Your task to perform on an android device: Go to internet settings Image 0: 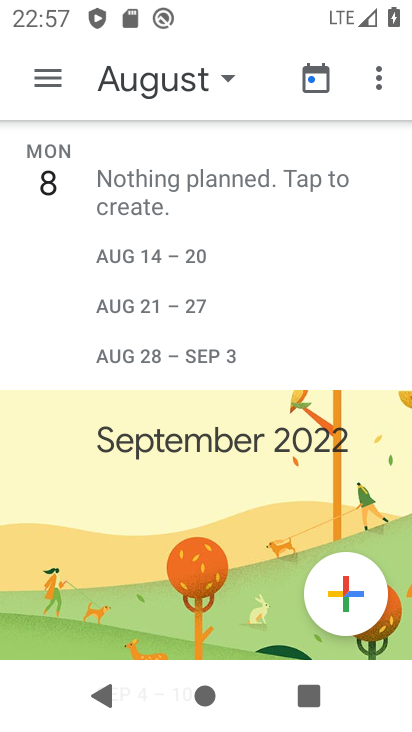
Step 0: press home button
Your task to perform on an android device: Go to internet settings Image 1: 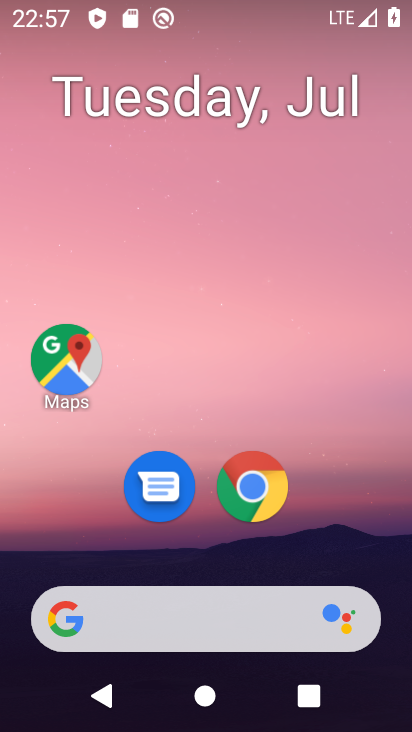
Step 1: drag from (364, 538) to (371, 62)
Your task to perform on an android device: Go to internet settings Image 2: 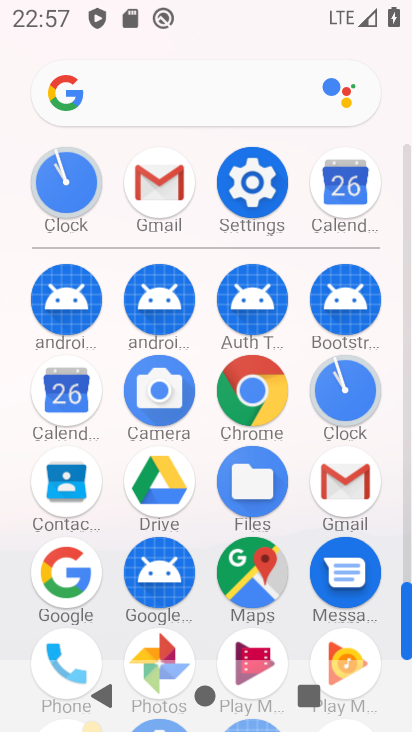
Step 2: click (261, 193)
Your task to perform on an android device: Go to internet settings Image 3: 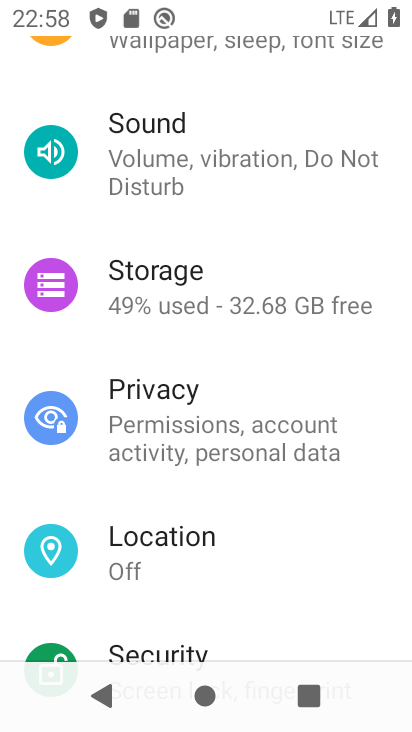
Step 3: drag from (371, 534) to (372, 444)
Your task to perform on an android device: Go to internet settings Image 4: 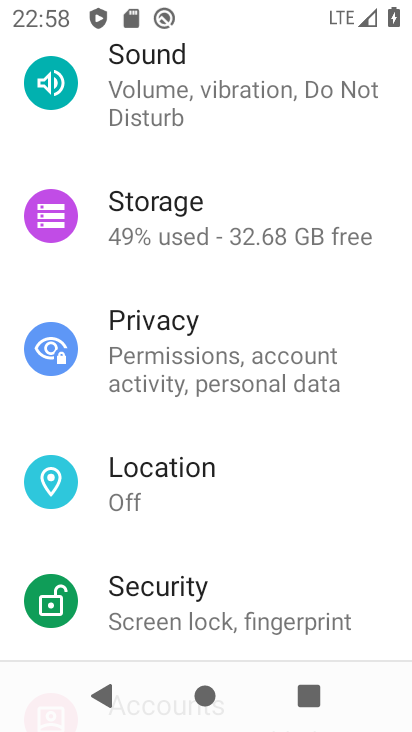
Step 4: drag from (351, 543) to (348, 443)
Your task to perform on an android device: Go to internet settings Image 5: 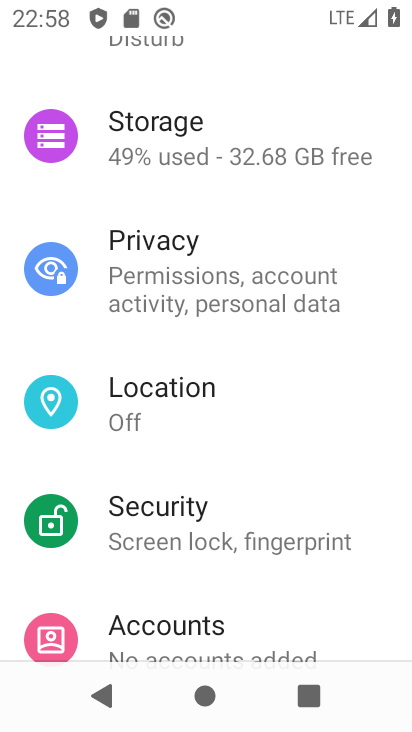
Step 5: drag from (349, 585) to (348, 480)
Your task to perform on an android device: Go to internet settings Image 6: 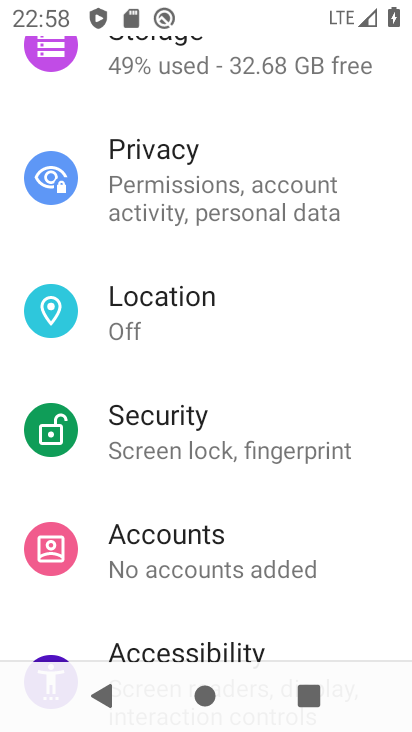
Step 6: drag from (360, 609) to (356, 540)
Your task to perform on an android device: Go to internet settings Image 7: 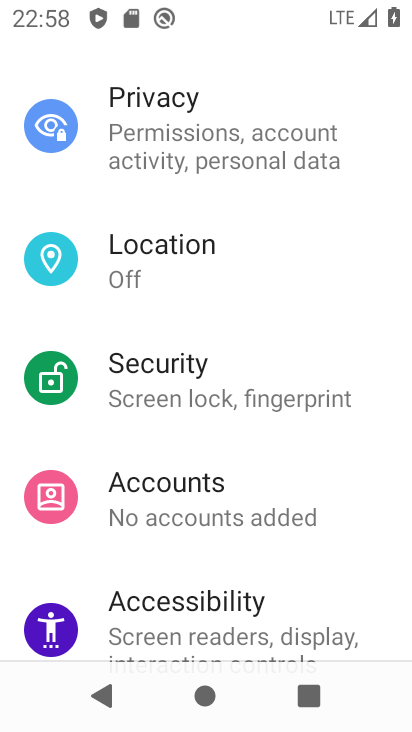
Step 7: drag from (349, 603) to (349, 511)
Your task to perform on an android device: Go to internet settings Image 8: 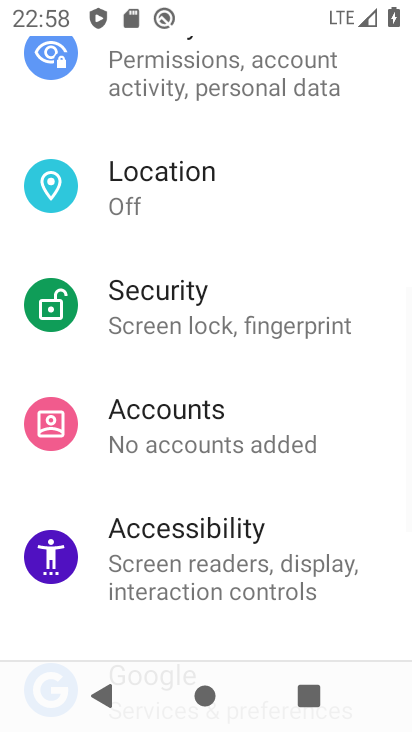
Step 8: drag from (355, 617) to (358, 538)
Your task to perform on an android device: Go to internet settings Image 9: 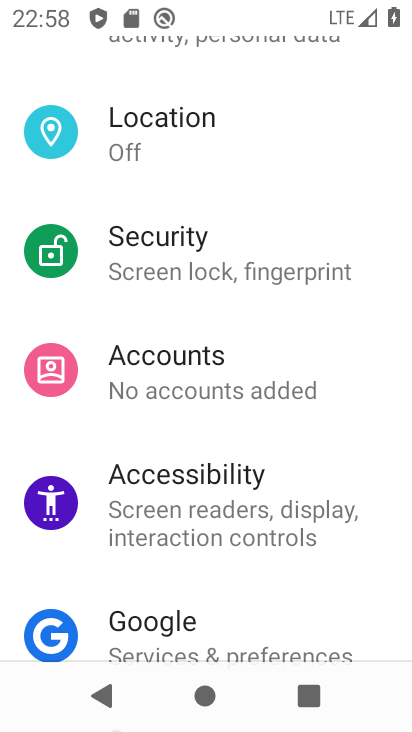
Step 9: drag from (350, 612) to (355, 519)
Your task to perform on an android device: Go to internet settings Image 10: 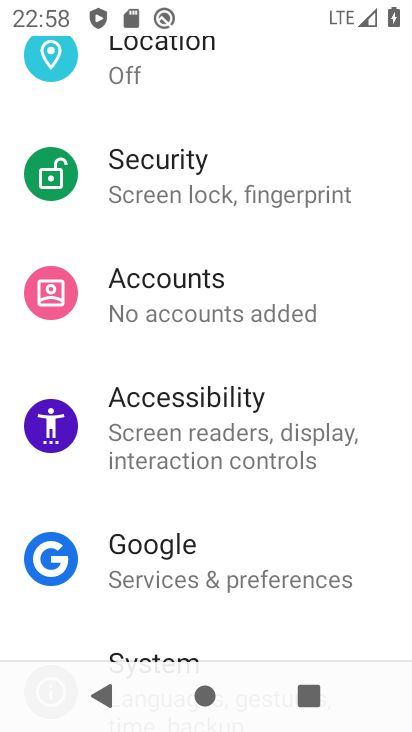
Step 10: drag from (363, 613) to (361, 507)
Your task to perform on an android device: Go to internet settings Image 11: 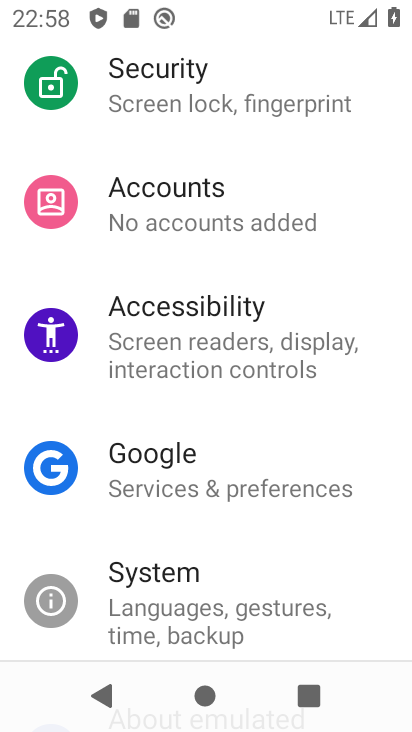
Step 11: drag from (359, 363) to (372, 485)
Your task to perform on an android device: Go to internet settings Image 12: 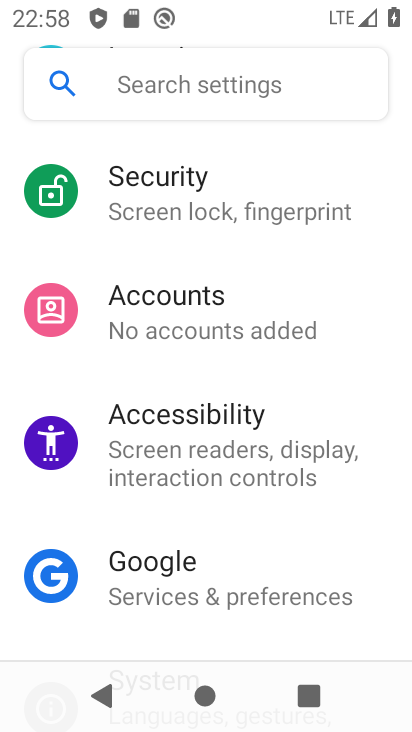
Step 12: drag from (372, 324) to (372, 452)
Your task to perform on an android device: Go to internet settings Image 13: 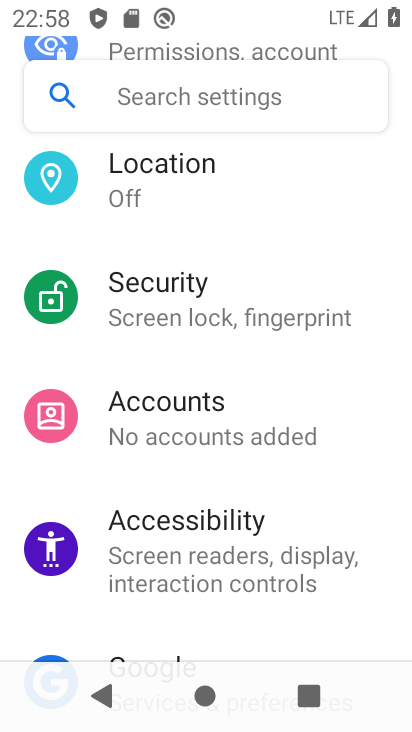
Step 13: drag from (372, 316) to (376, 424)
Your task to perform on an android device: Go to internet settings Image 14: 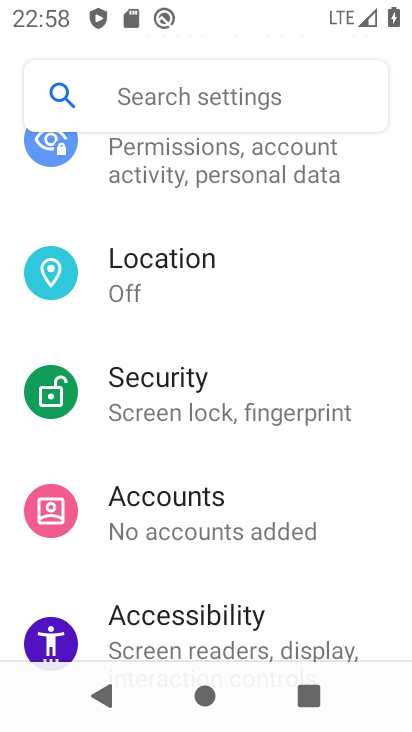
Step 14: drag from (364, 295) to (367, 403)
Your task to perform on an android device: Go to internet settings Image 15: 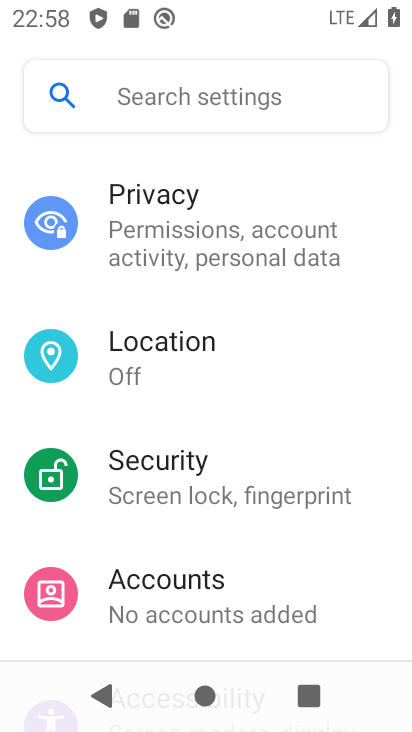
Step 15: drag from (368, 276) to (377, 391)
Your task to perform on an android device: Go to internet settings Image 16: 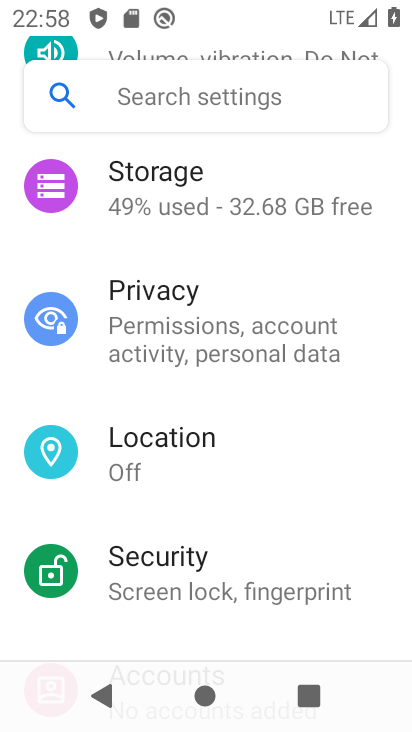
Step 16: drag from (377, 279) to (369, 402)
Your task to perform on an android device: Go to internet settings Image 17: 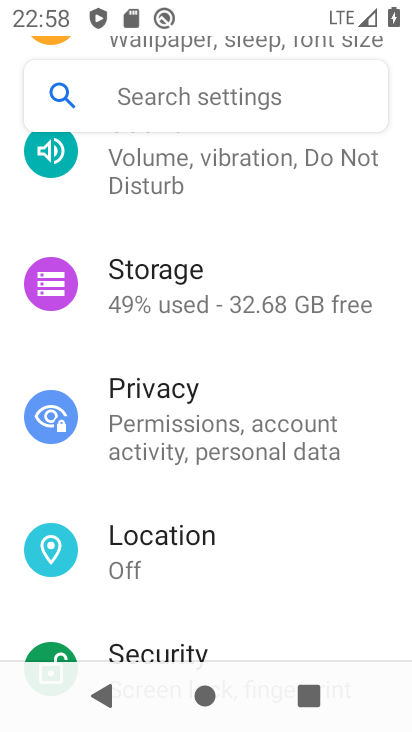
Step 17: drag from (369, 278) to (369, 396)
Your task to perform on an android device: Go to internet settings Image 18: 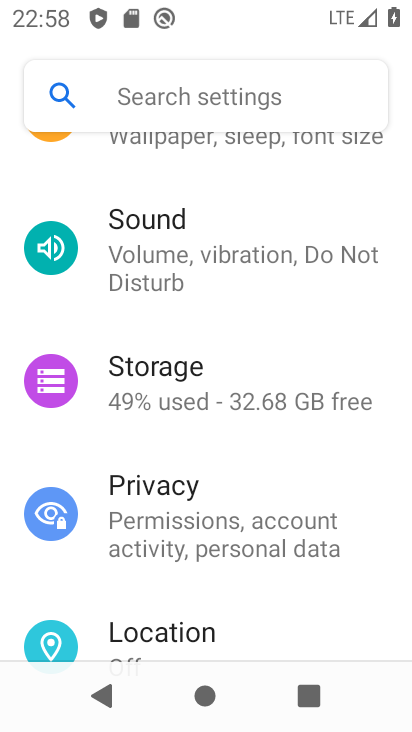
Step 18: drag from (360, 294) to (360, 410)
Your task to perform on an android device: Go to internet settings Image 19: 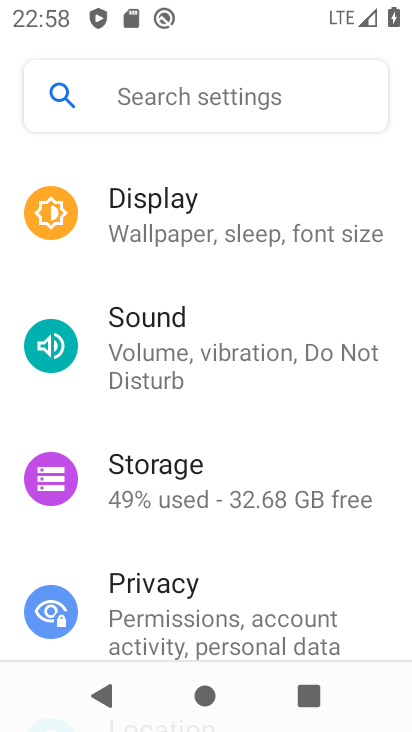
Step 19: drag from (351, 287) to (352, 411)
Your task to perform on an android device: Go to internet settings Image 20: 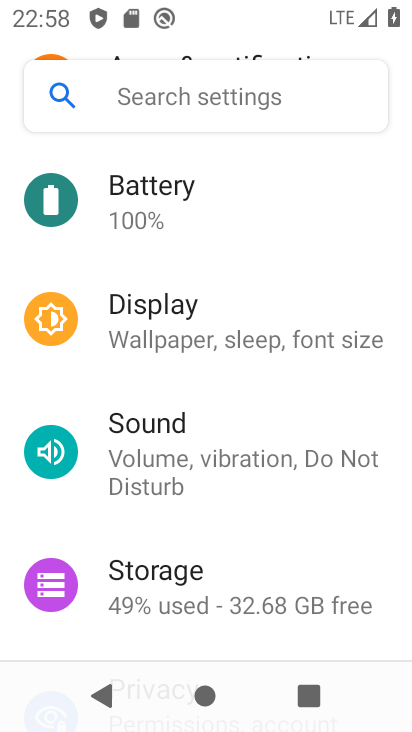
Step 20: drag from (356, 276) to (359, 399)
Your task to perform on an android device: Go to internet settings Image 21: 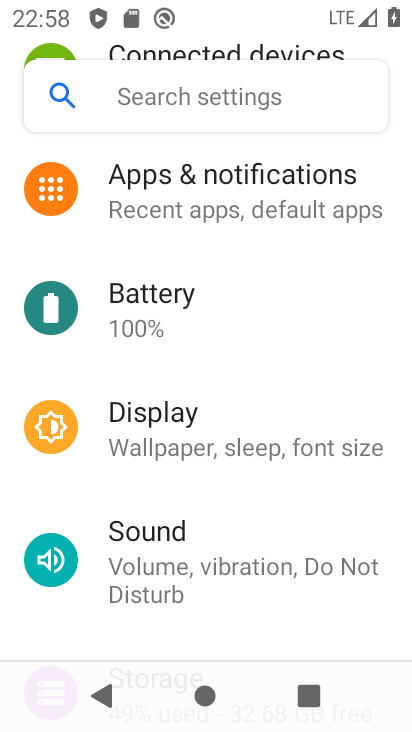
Step 21: drag from (358, 283) to (358, 374)
Your task to perform on an android device: Go to internet settings Image 22: 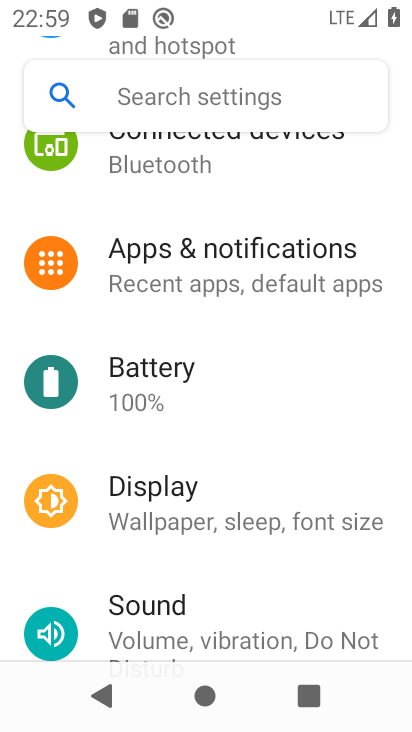
Step 22: drag from (346, 509) to (335, 372)
Your task to perform on an android device: Go to internet settings Image 23: 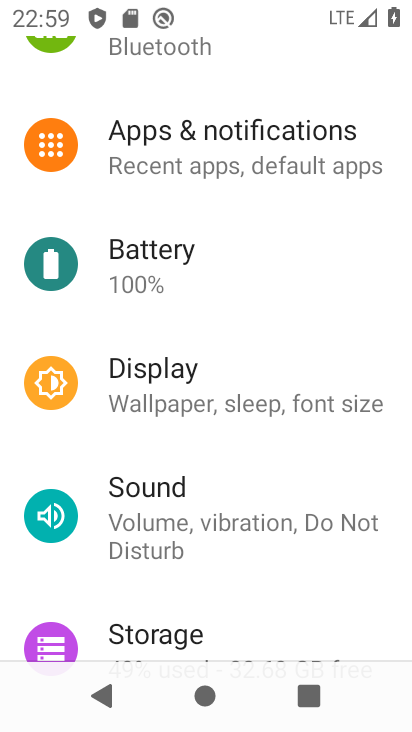
Step 23: drag from (339, 538) to (334, 418)
Your task to perform on an android device: Go to internet settings Image 24: 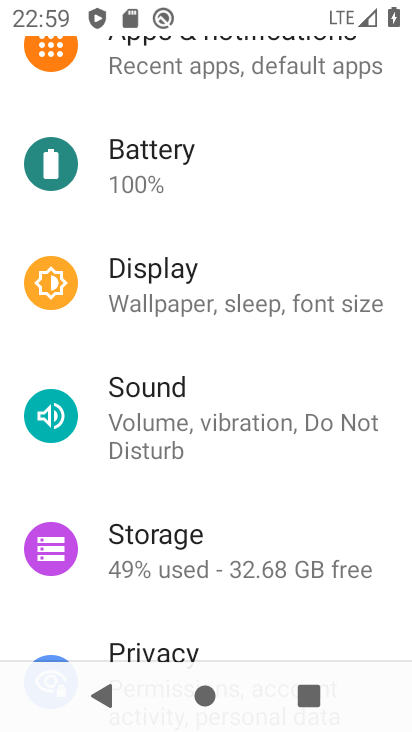
Step 24: drag from (346, 578) to (345, 508)
Your task to perform on an android device: Go to internet settings Image 25: 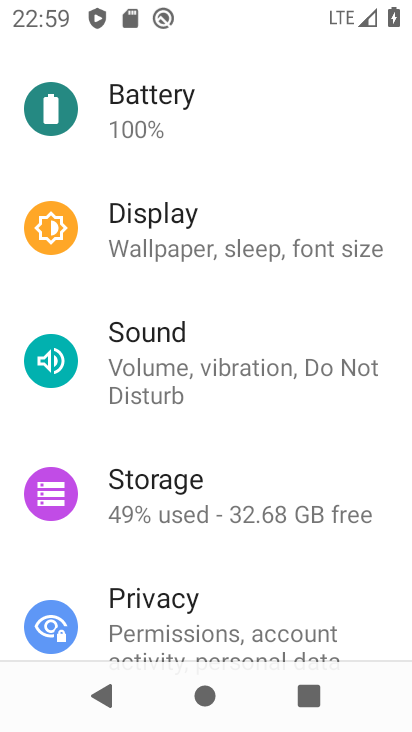
Step 25: drag from (340, 598) to (334, 473)
Your task to perform on an android device: Go to internet settings Image 26: 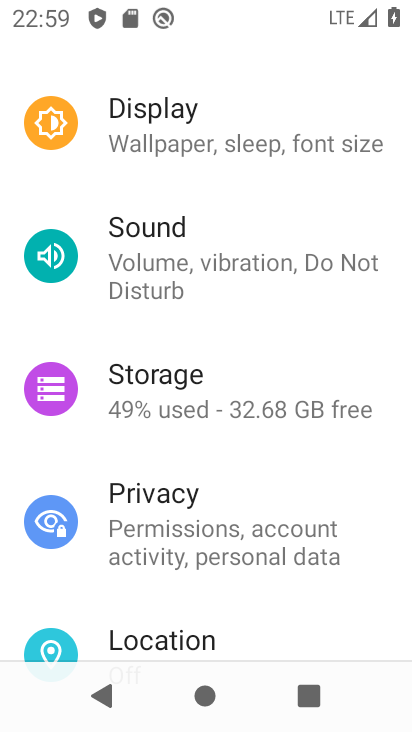
Step 26: drag from (341, 598) to (344, 501)
Your task to perform on an android device: Go to internet settings Image 27: 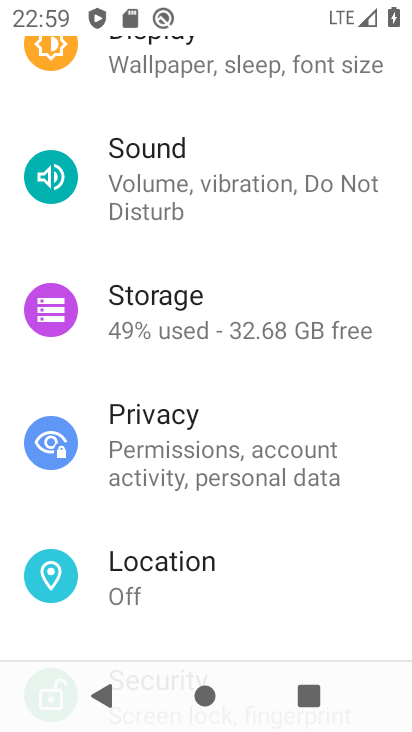
Step 27: drag from (357, 585) to (358, 458)
Your task to perform on an android device: Go to internet settings Image 28: 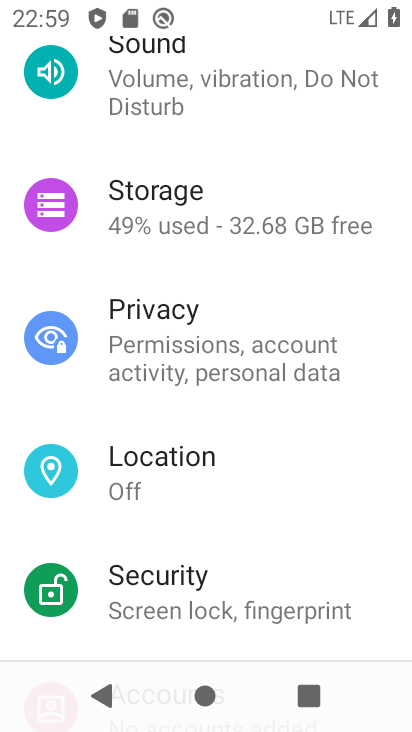
Step 28: drag from (355, 560) to (345, 466)
Your task to perform on an android device: Go to internet settings Image 29: 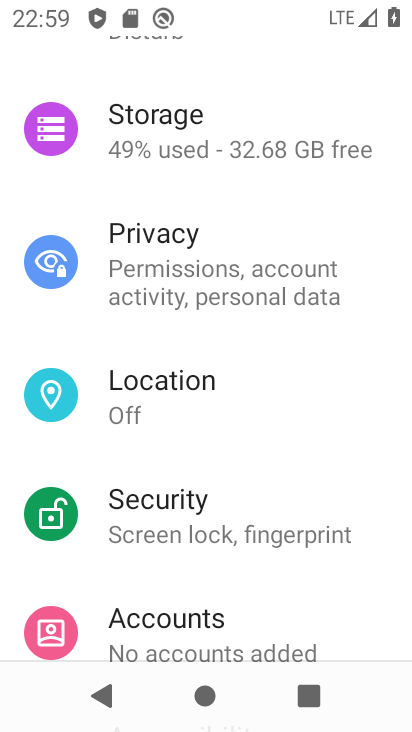
Step 29: drag from (358, 317) to (378, 489)
Your task to perform on an android device: Go to internet settings Image 30: 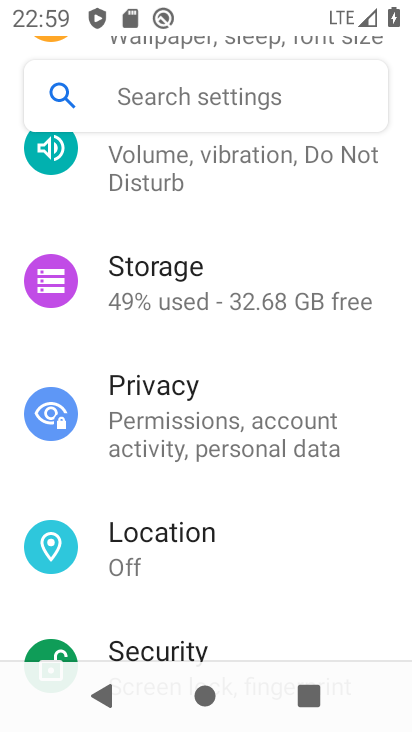
Step 30: drag from (360, 332) to (368, 479)
Your task to perform on an android device: Go to internet settings Image 31: 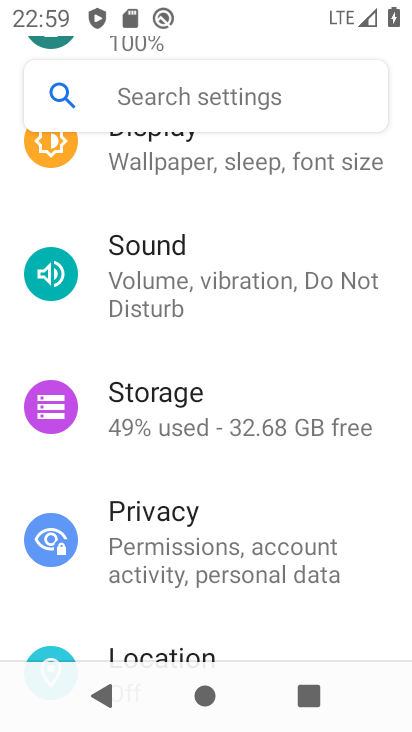
Step 31: drag from (364, 327) to (378, 435)
Your task to perform on an android device: Go to internet settings Image 32: 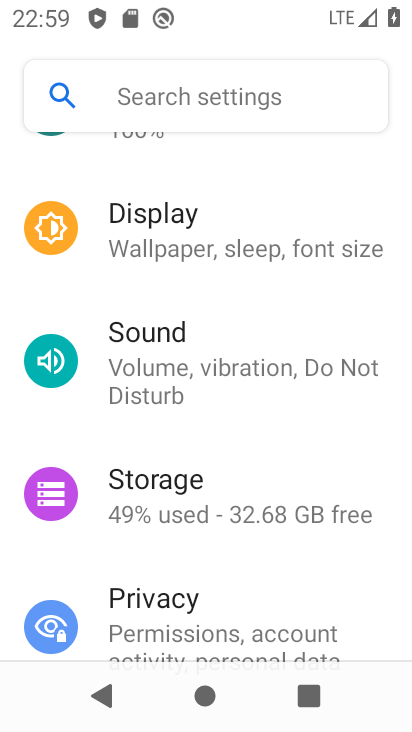
Step 32: drag from (351, 204) to (371, 468)
Your task to perform on an android device: Go to internet settings Image 33: 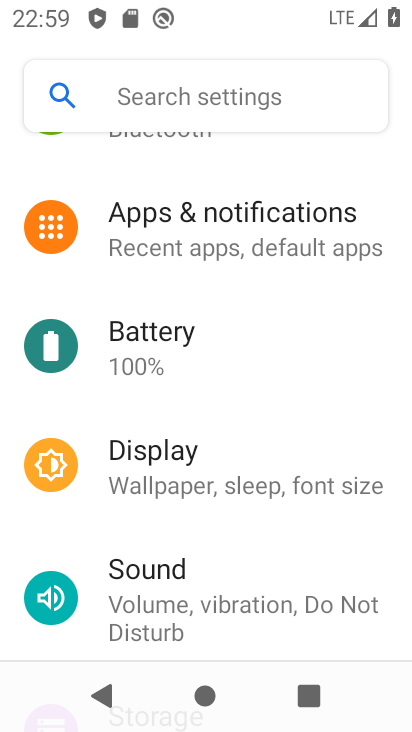
Step 33: drag from (356, 184) to (367, 356)
Your task to perform on an android device: Go to internet settings Image 34: 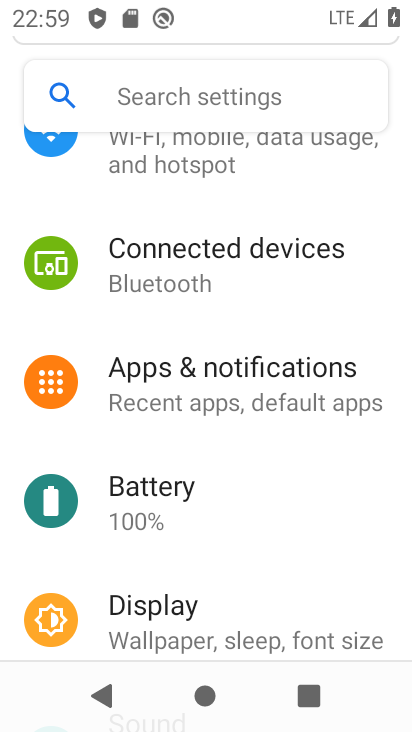
Step 34: drag from (340, 185) to (351, 358)
Your task to perform on an android device: Go to internet settings Image 35: 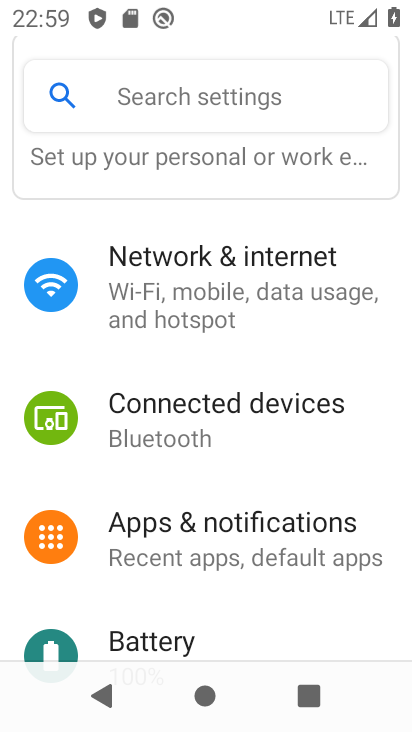
Step 35: click (314, 295)
Your task to perform on an android device: Go to internet settings Image 36: 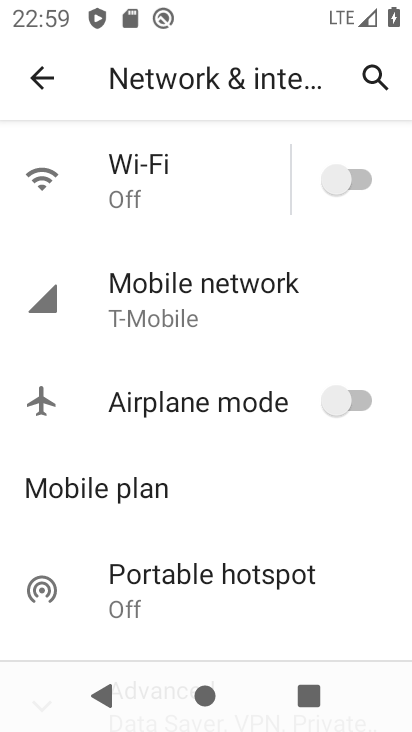
Step 36: task complete